Your task to perform on an android device: Go to wifi settings Image 0: 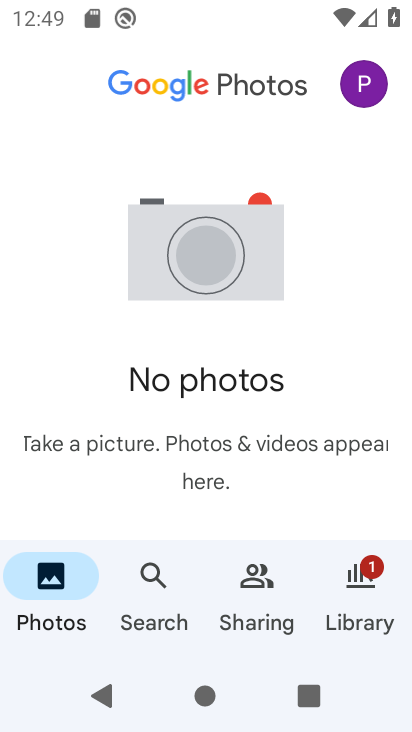
Step 0: press home button
Your task to perform on an android device: Go to wifi settings Image 1: 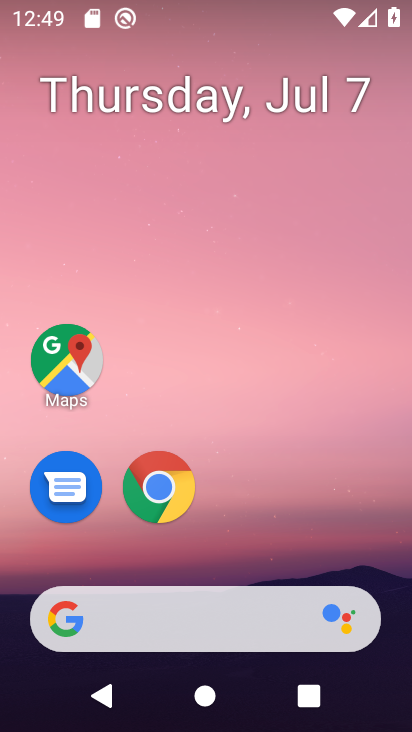
Step 1: drag from (357, 522) to (361, 78)
Your task to perform on an android device: Go to wifi settings Image 2: 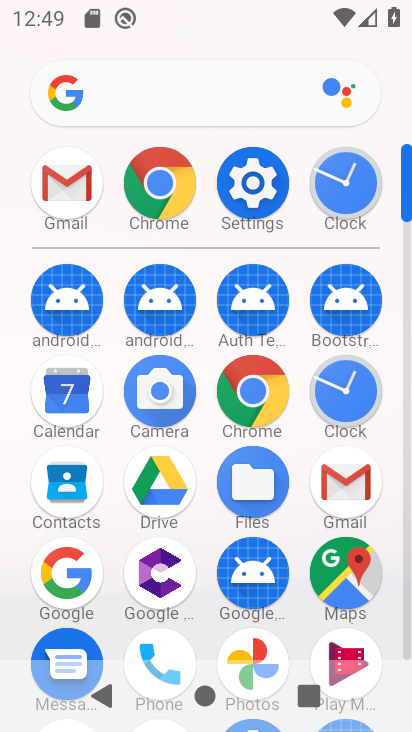
Step 2: click (261, 194)
Your task to perform on an android device: Go to wifi settings Image 3: 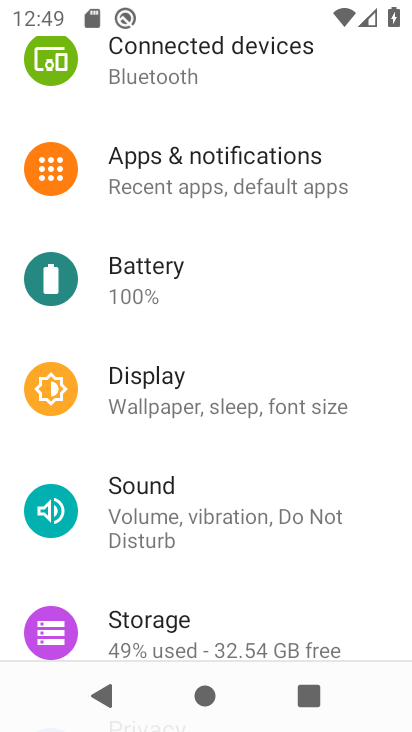
Step 3: drag from (363, 220) to (373, 415)
Your task to perform on an android device: Go to wifi settings Image 4: 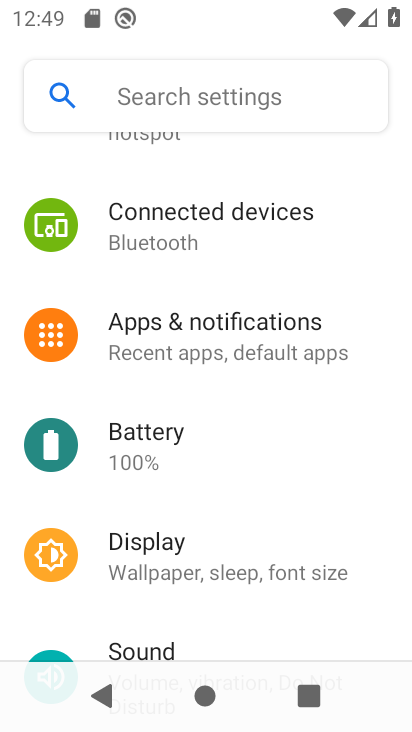
Step 4: drag from (357, 194) to (357, 408)
Your task to perform on an android device: Go to wifi settings Image 5: 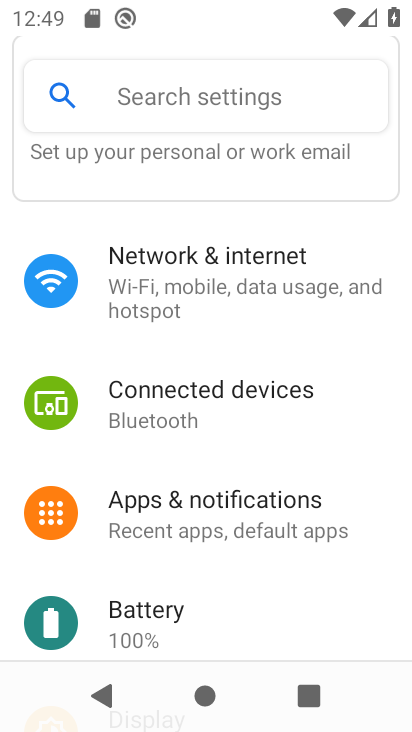
Step 5: click (285, 281)
Your task to perform on an android device: Go to wifi settings Image 6: 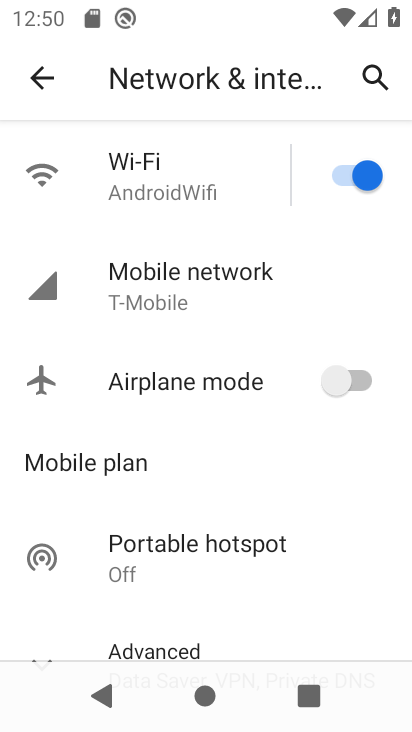
Step 6: click (193, 191)
Your task to perform on an android device: Go to wifi settings Image 7: 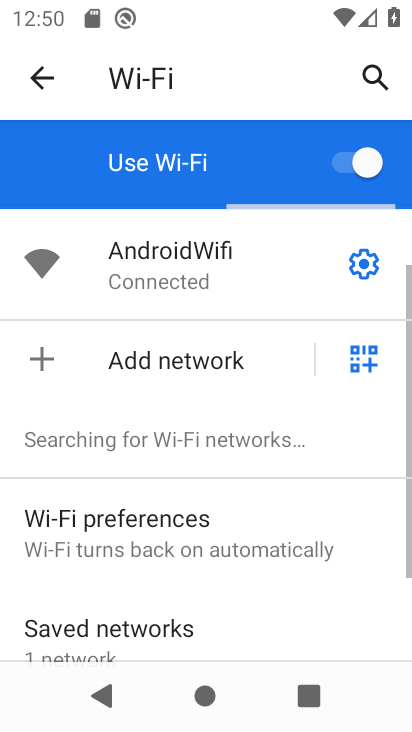
Step 7: task complete